Your task to perform on an android device: open a bookmark in the chrome app Image 0: 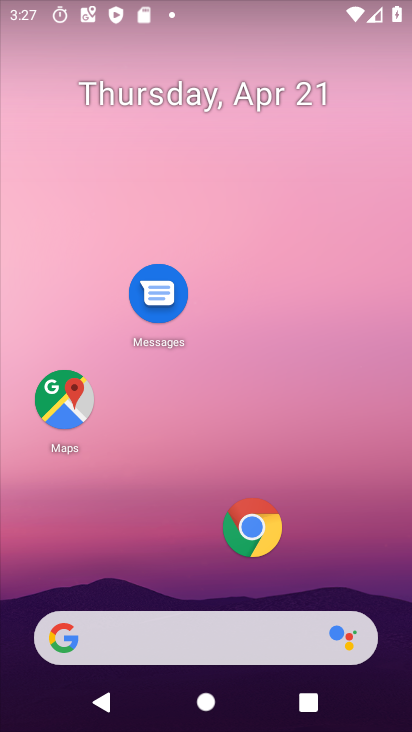
Step 0: click (252, 522)
Your task to perform on an android device: open a bookmark in the chrome app Image 1: 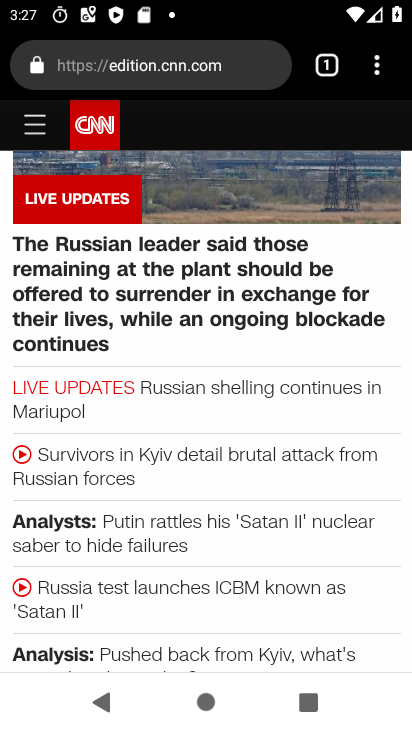
Step 1: click (379, 61)
Your task to perform on an android device: open a bookmark in the chrome app Image 2: 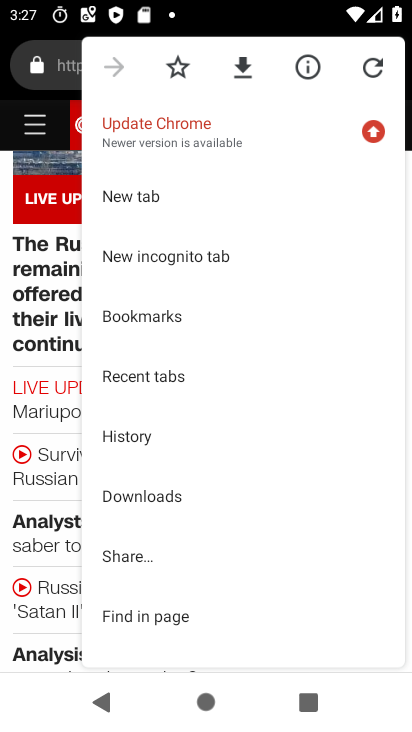
Step 2: click (148, 321)
Your task to perform on an android device: open a bookmark in the chrome app Image 3: 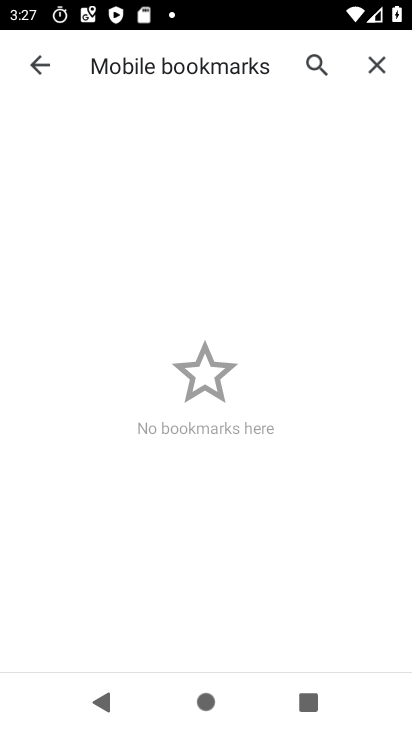
Step 3: task complete